Your task to perform on an android device: open a new tab in the chrome app Image 0: 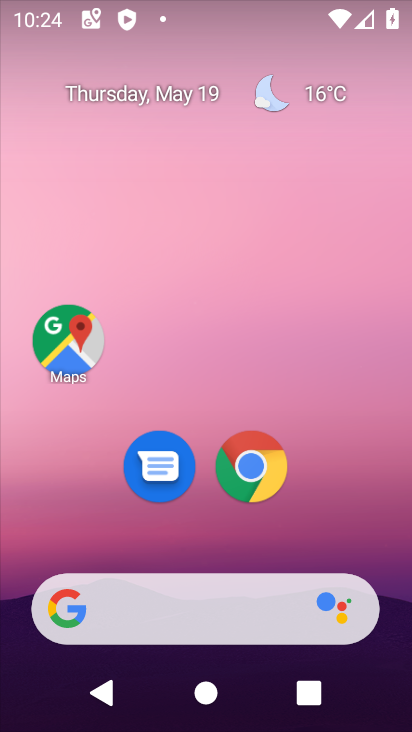
Step 0: click (267, 461)
Your task to perform on an android device: open a new tab in the chrome app Image 1: 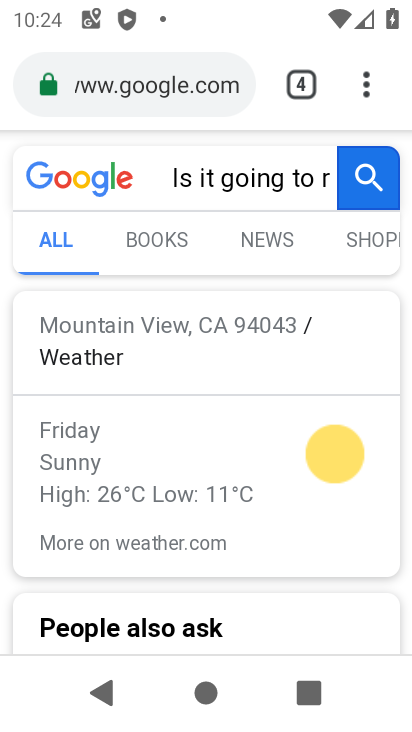
Step 1: click (351, 90)
Your task to perform on an android device: open a new tab in the chrome app Image 2: 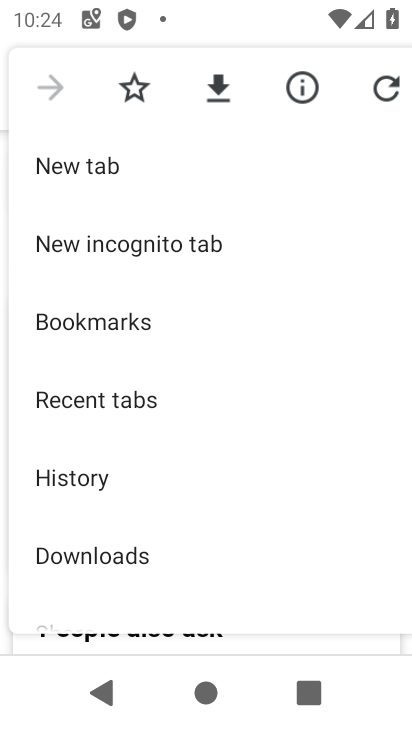
Step 2: click (130, 161)
Your task to perform on an android device: open a new tab in the chrome app Image 3: 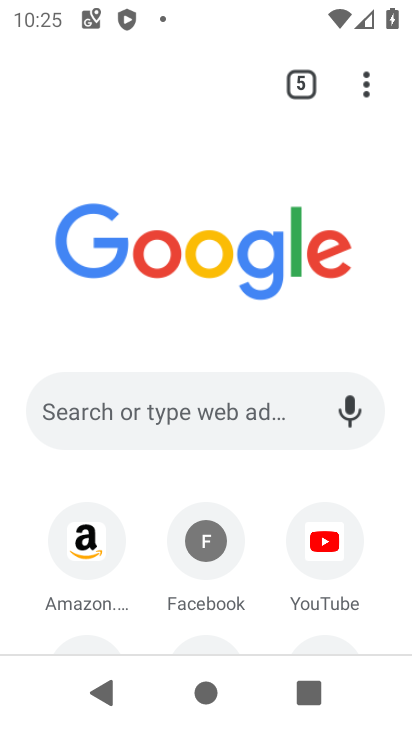
Step 3: task complete